Your task to perform on an android device: Open Chrome and go to settings Image 0: 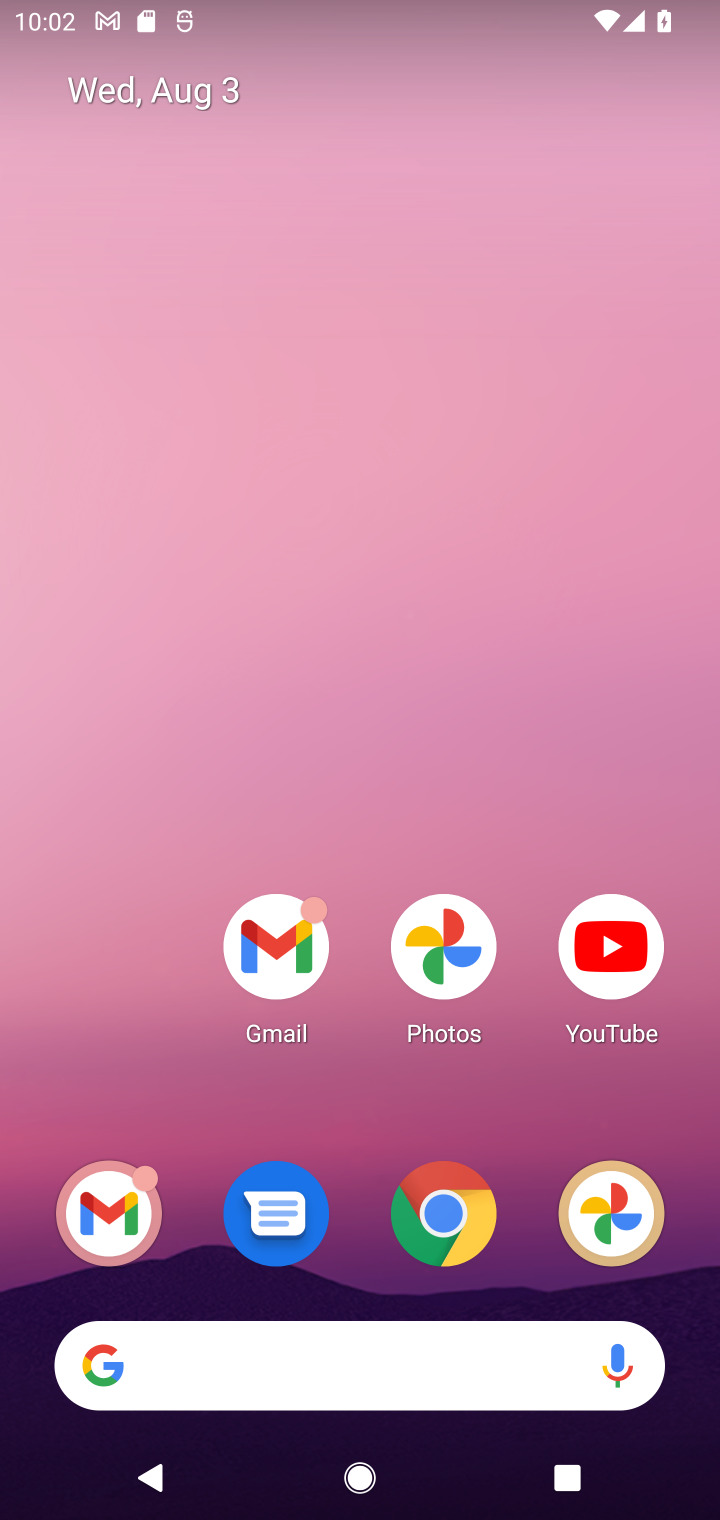
Step 0: click (421, 1250)
Your task to perform on an android device: Open Chrome and go to settings Image 1: 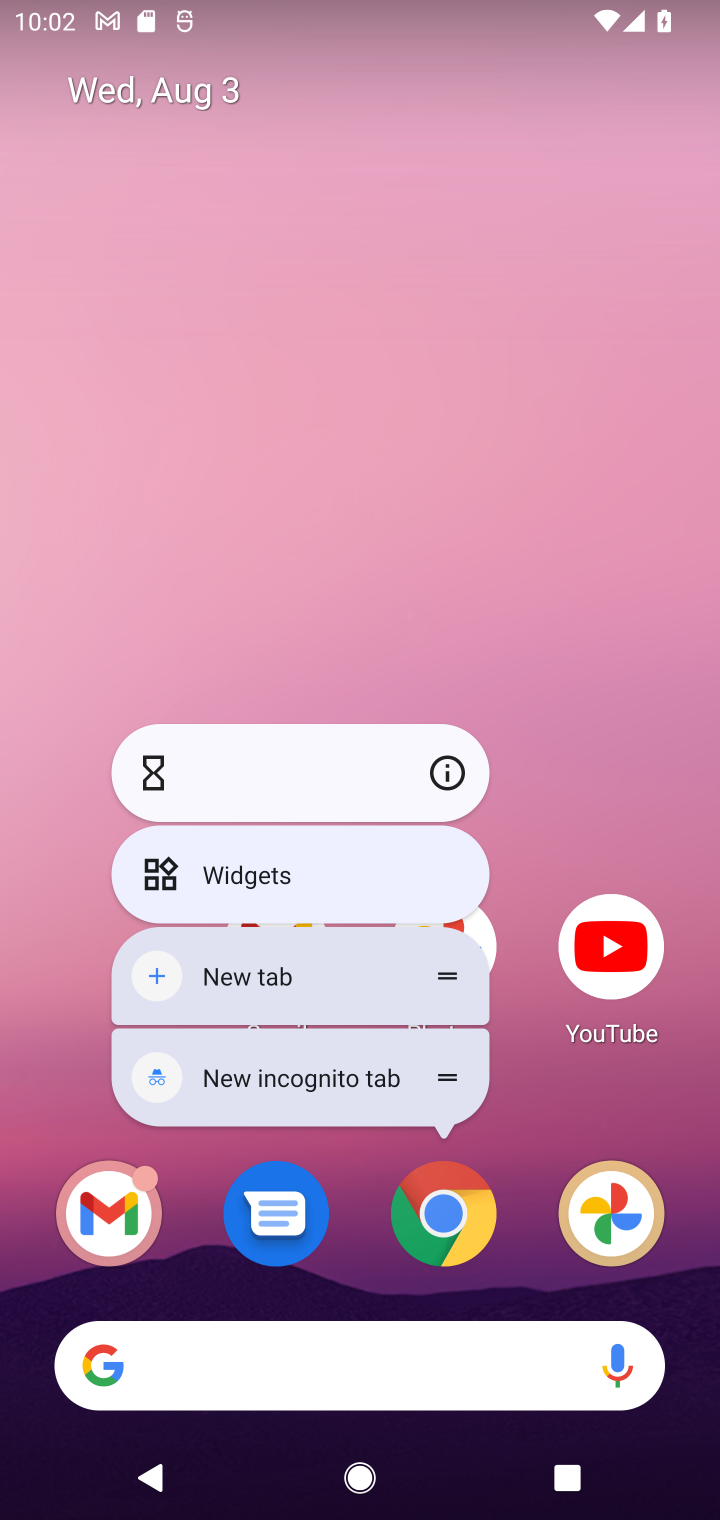
Step 1: click (427, 1197)
Your task to perform on an android device: Open Chrome and go to settings Image 2: 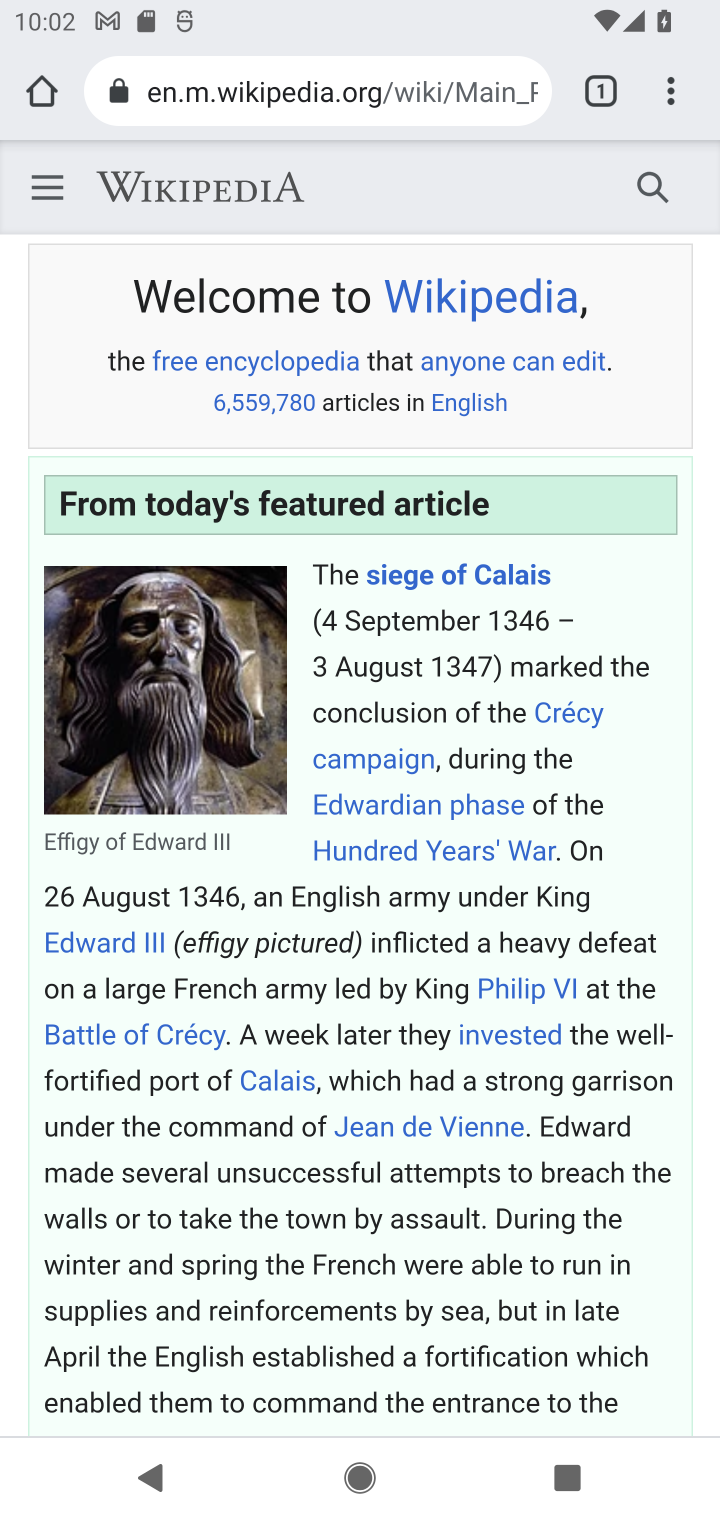
Step 2: click (674, 99)
Your task to perform on an android device: Open Chrome and go to settings Image 3: 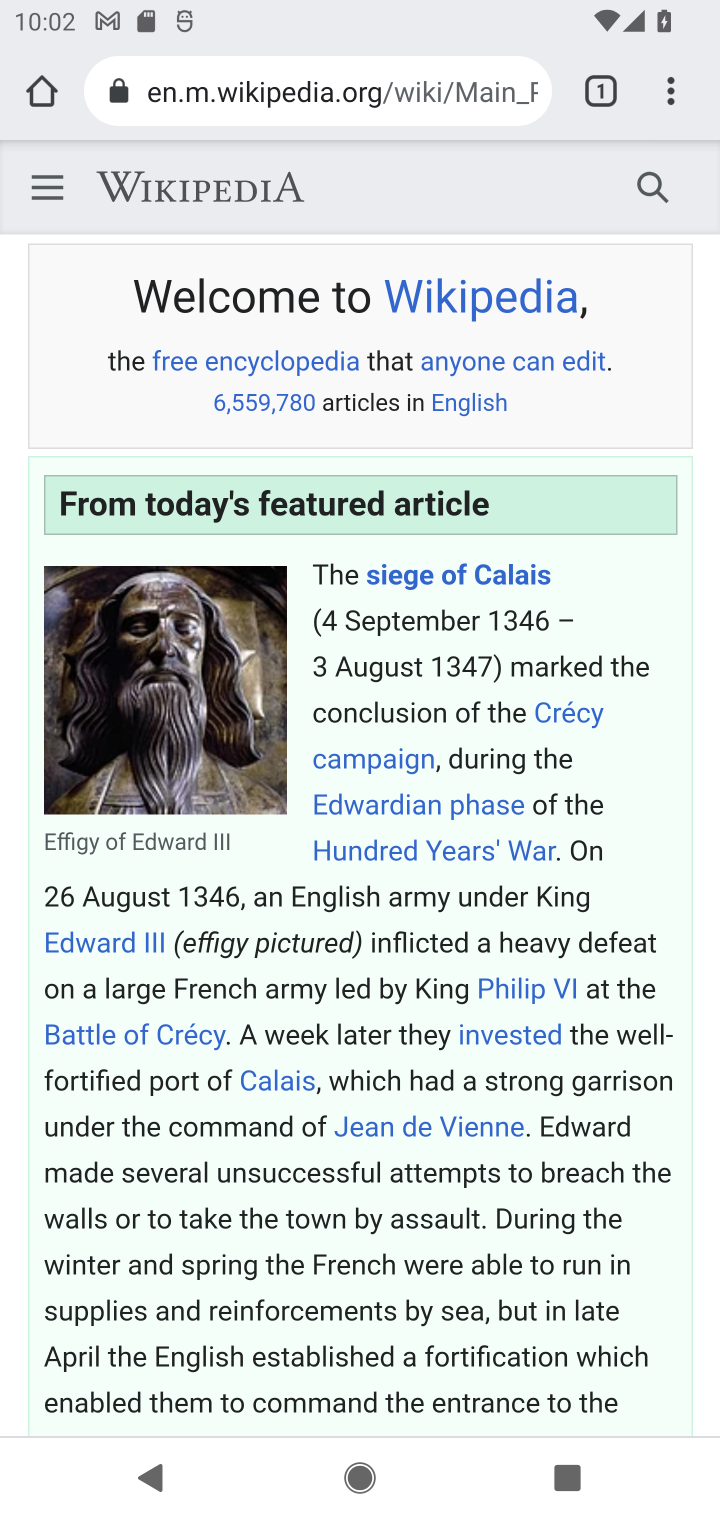
Step 3: task complete